Your task to perform on an android device: Open calendar and show me the third week of next month Image 0: 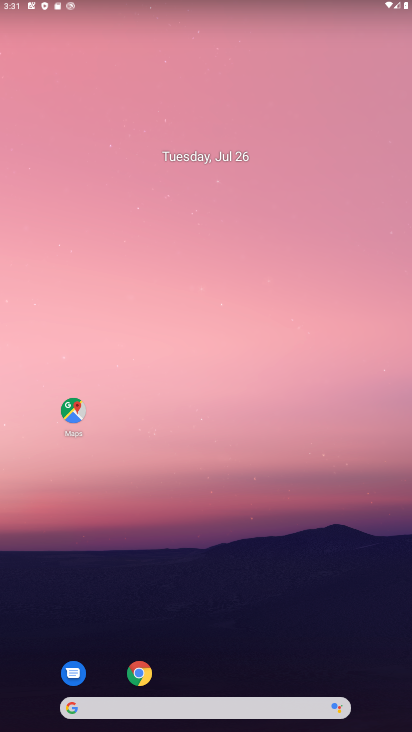
Step 0: drag from (266, 661) to (237, 36)
Your task to perform on an android device: Open calendar and show me the third week of next month Image 1: 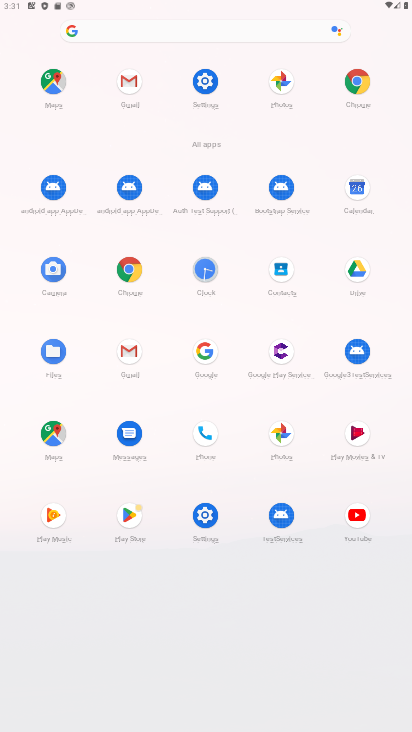
Step 1: click (355, 188)
Your task to perform on an android device: Open calendar and show me the third week of next month Image 2: 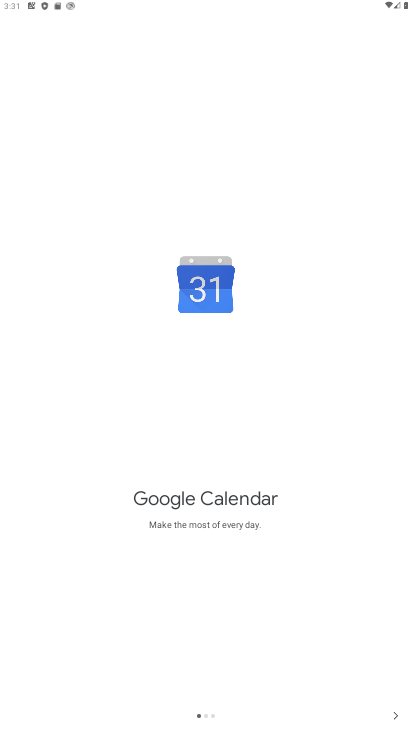
Step 2: click (404, 722)
Your task to perform on an android device: Open calendar and show me the third week of next month Image 3: 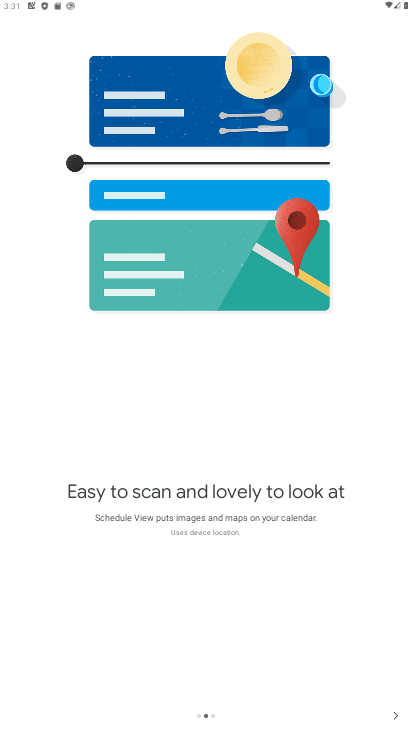
Step 3: click (404, 722)
Your task to perform on an android device: Open calendar and show me the third week of next month Image 4: 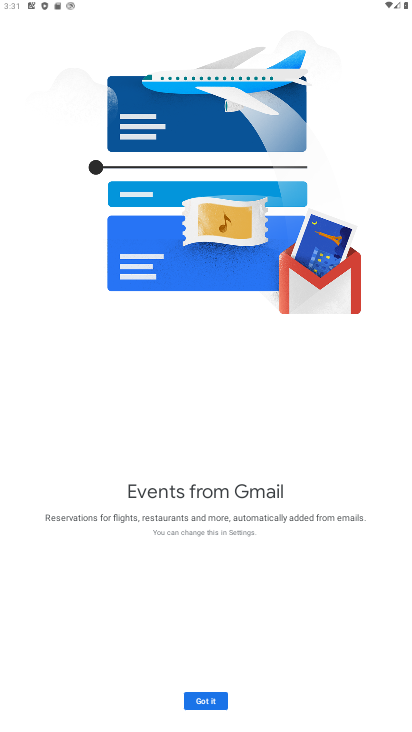
Step 4: click (213, 700)
Your task to perform on an android device: Open calendar and show me the third week of next month Image 5: 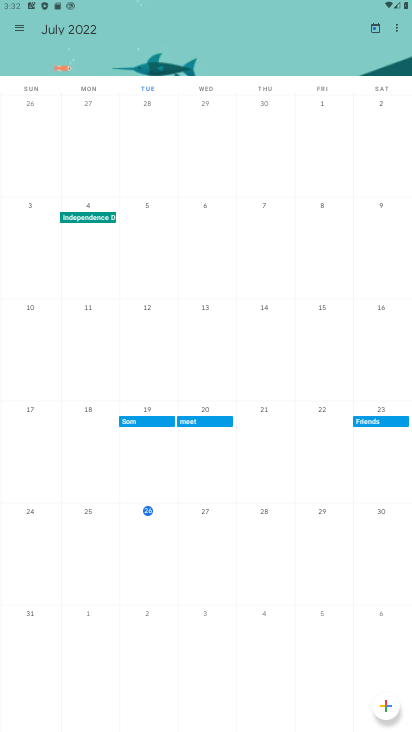
Step 5: click (13, 30)
Your task to perform on an android device: Open calendar and show me the third week of next month Image 6: 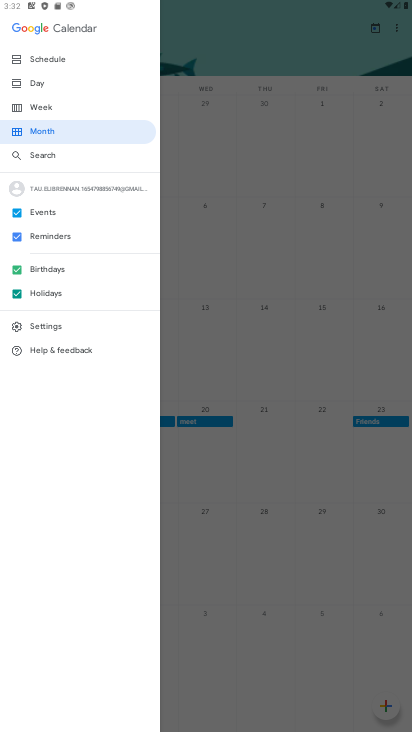
Step 6: drag from (356, 335) to (0, 359)
Your task to perform on an android device: Open calendar and show me the third week of next month Image 7: 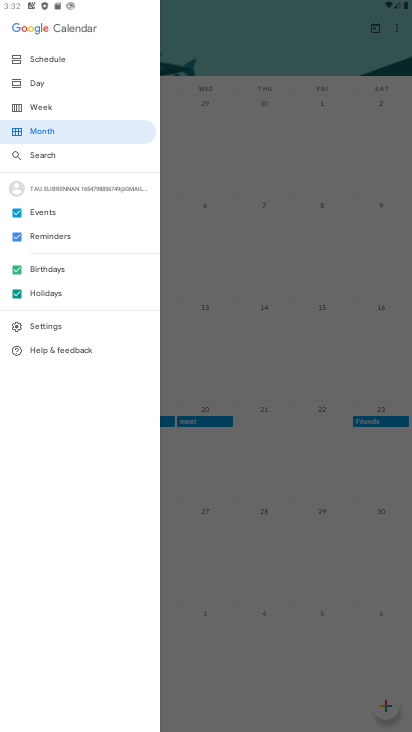
Step 7: click (254, 42)
Your task to perform on an android device: Open calendar and show me the third week of next month Image 8: 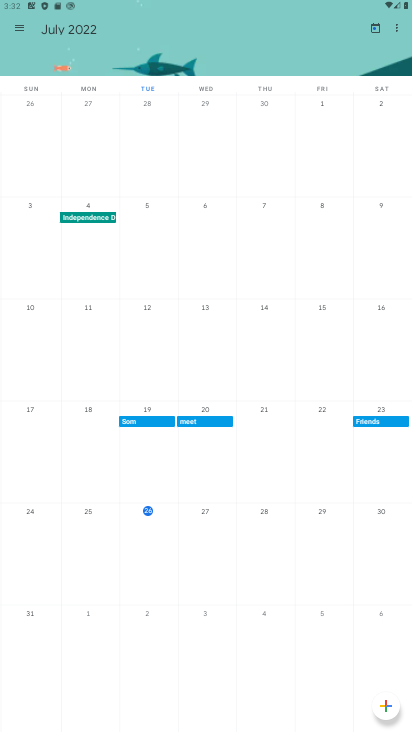
Step 8: drag from (339, 317) to (0, 57)
Your task to perform on an android device: Open calendar and show me the third week of next month Image 9: 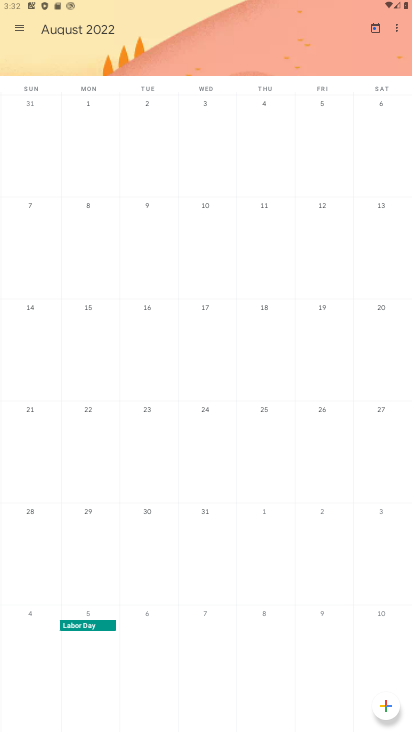
Step 9: click (14, 28)
Your task to perform on an android device: Open calendar and show me the third week of next month Image 10: 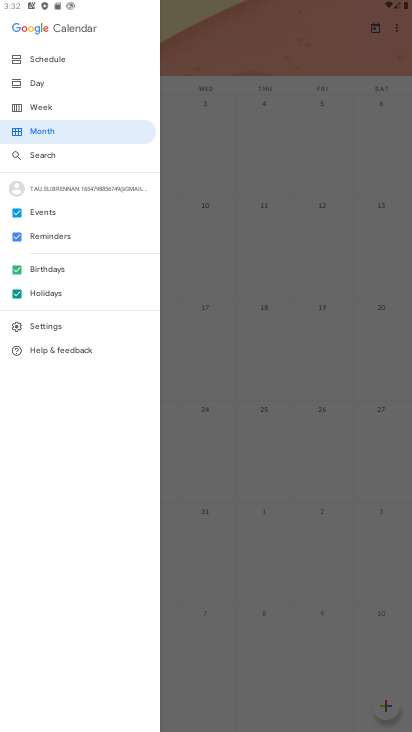
Step 10: click (31, 106)
Your task to perform on an android device: Open calendar and show me the third week of next month Image 11: 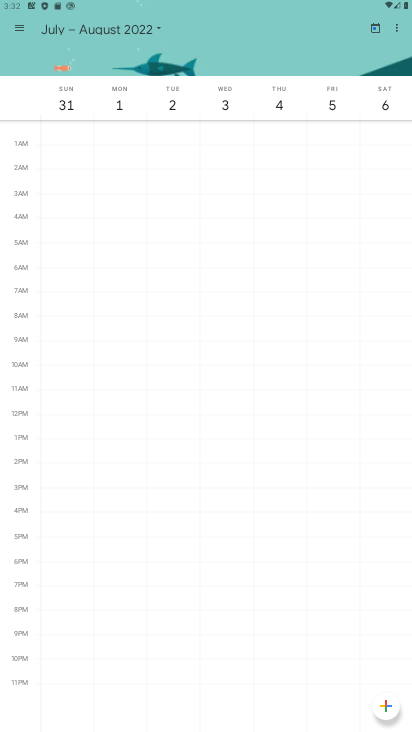
Step 11: task complete